Your task to perform on an android device: turn on showing notifications on the lock screen Image 0: 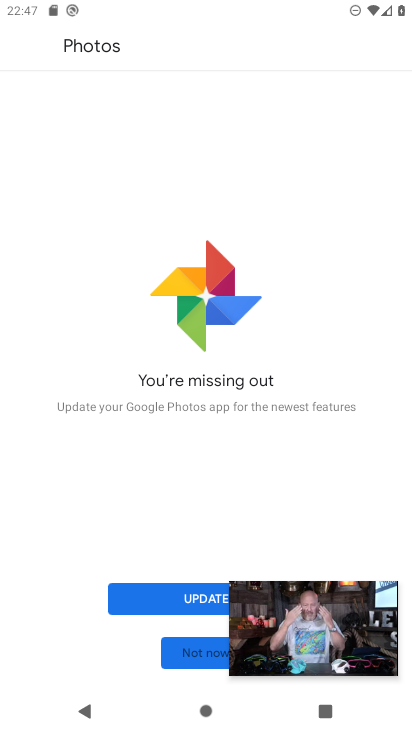
Step 0: press home button
Your task to perform on an android device: turn on showing notifications on the lock screen Image 1: 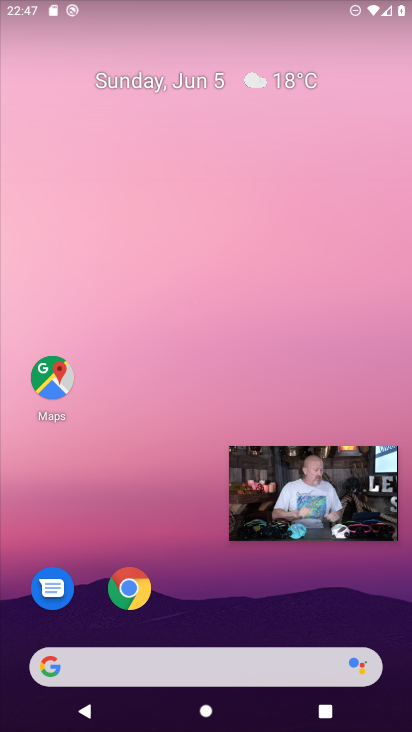
Step 1: drag from (214, 583) to (300, 109)
Your task to perform on an android device: turn on showing notifications on the lock screen Image 2: 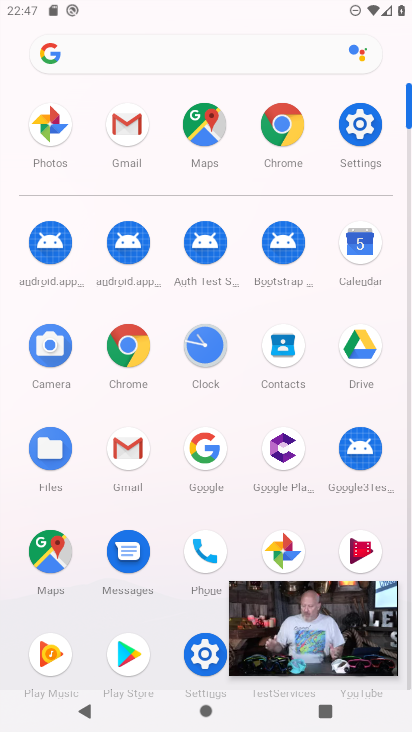
Step 2: click (359, 144)
Your task to perform on an android device: turn on showing notifications on the lock screen Image 3: 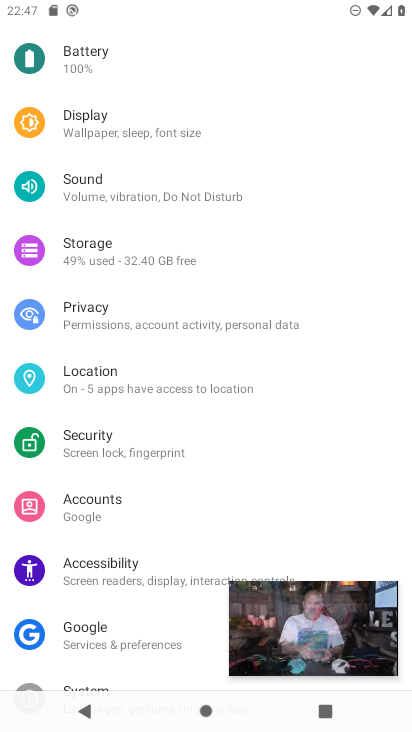
Step 3: drag from (327, 147) to (328, 293)
Your task to perform on an android device: turn on showing notifications on the lock screen Image 4: 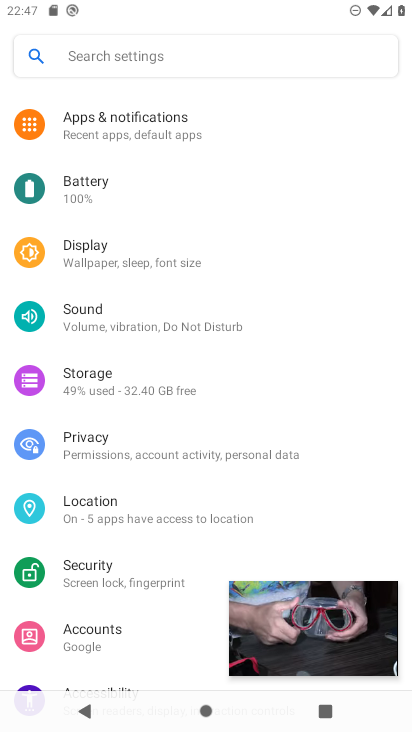
Step 4: drag from (323, 137) to (325, 344)
Your task to perform on an android device: turn on showing notifications on the lock screen Image 5: 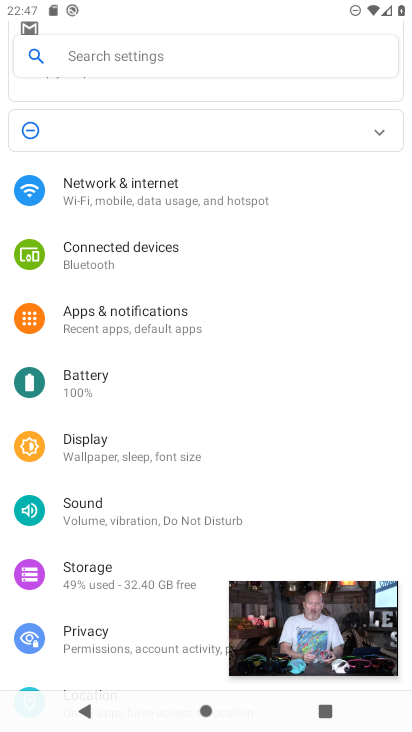
Step 5: drag from (310, 117) to (305, 344)
Your task to perform on an android device: turn on showing notifications on the lock screen Image 6: 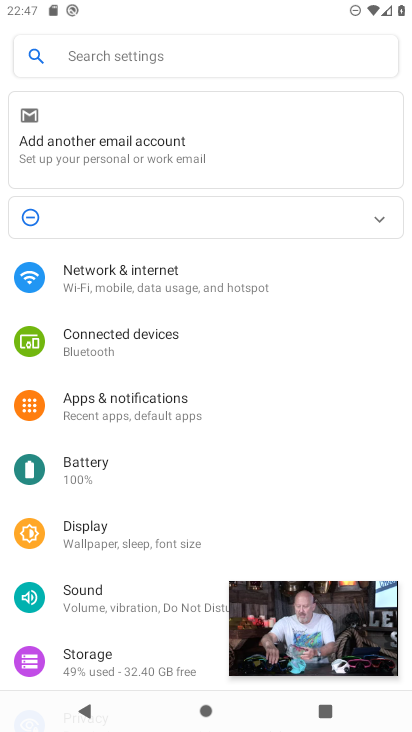
Step 6: click (181, 406)
Your task to perform on an android device: turn on showing notifications on the lock screen Image 7: 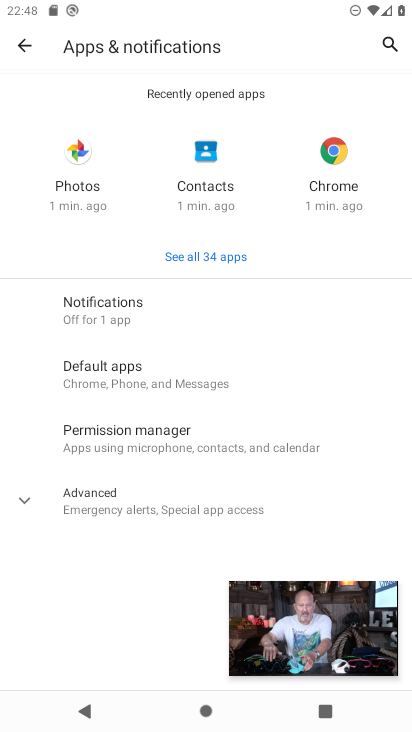
Step 7: click (118, 310)
Your task to perform on an android device: turn on showing notifications on the lock screen Image 8: 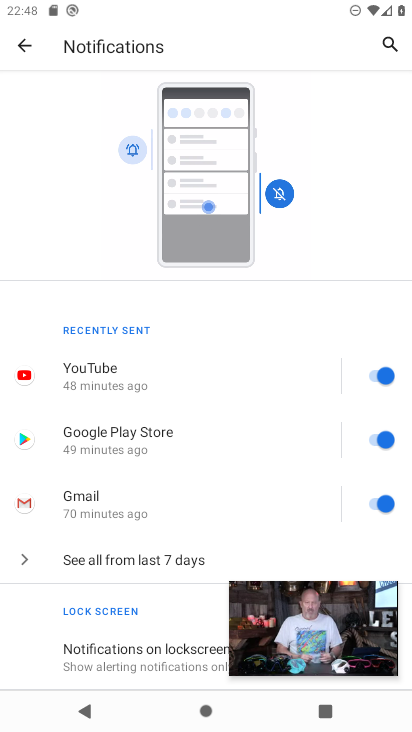
Step 8: drag from (250, 444) to (272, 286)
Your task to perform on an android device: turn on showing notifications on the lock screen Image 9: 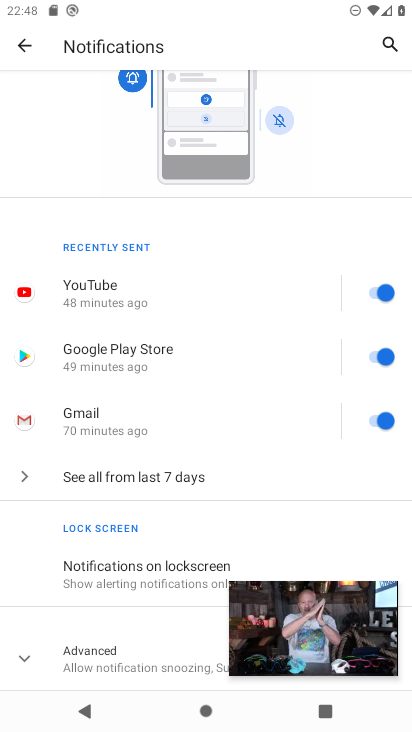
Step 9: drag from (236, 439) to (244, 263)
Your task to perform on an android device: turn on showing notifications on the lock screen Image 10: 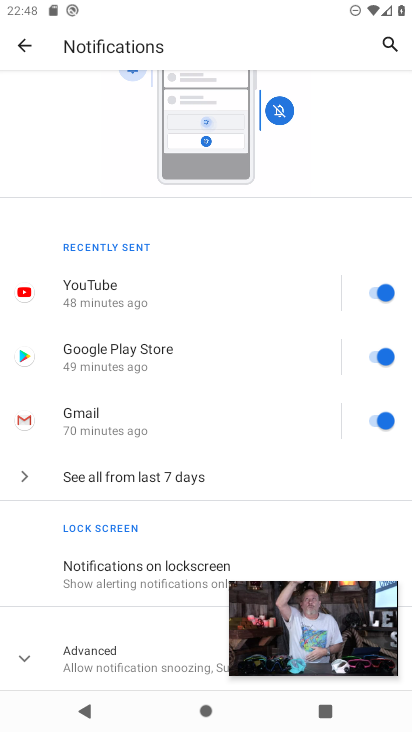
Step 10: click (136, 580)
Your task to perform on an android device: turn on showing notifications on the lock screen Image 11: 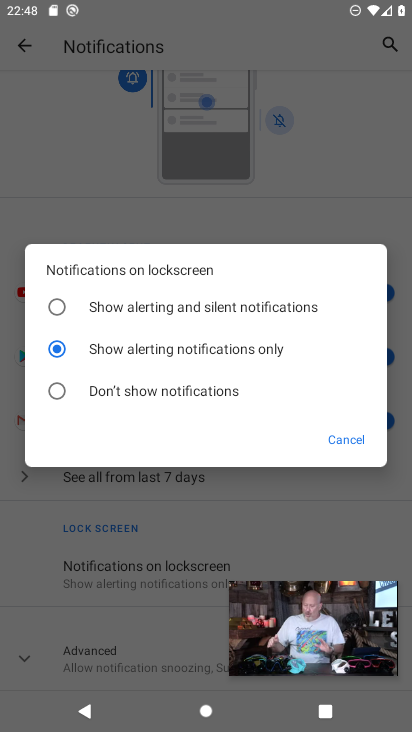
Step 11: task complete